Your task to perform on an android device: install app "Expedia: Hotels, Flights & Car" Image 0: 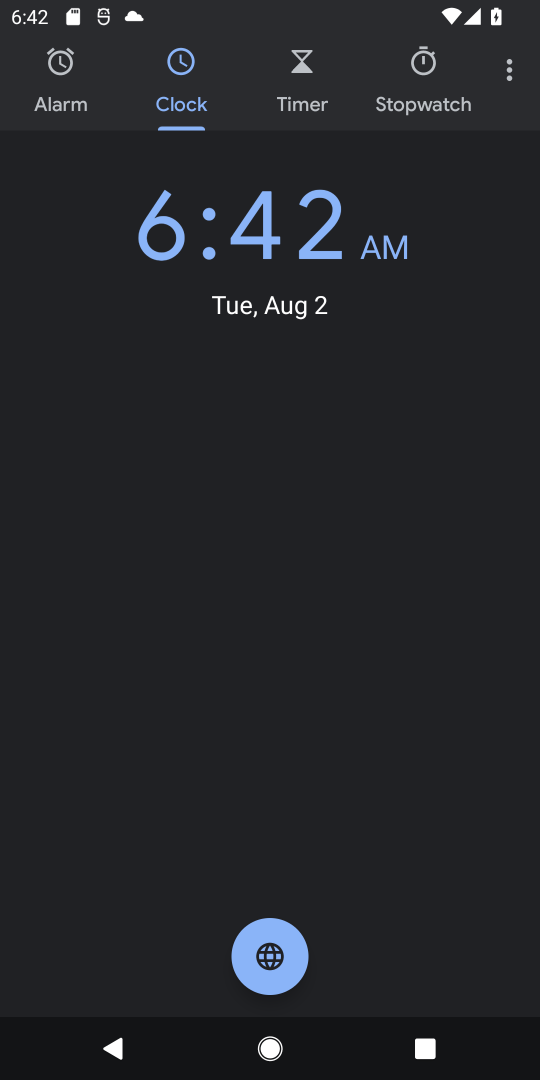
Step 0: press home button
Your task to perform on an android device: install app "Expedia: Hotels, Flights & Car" Image 1: 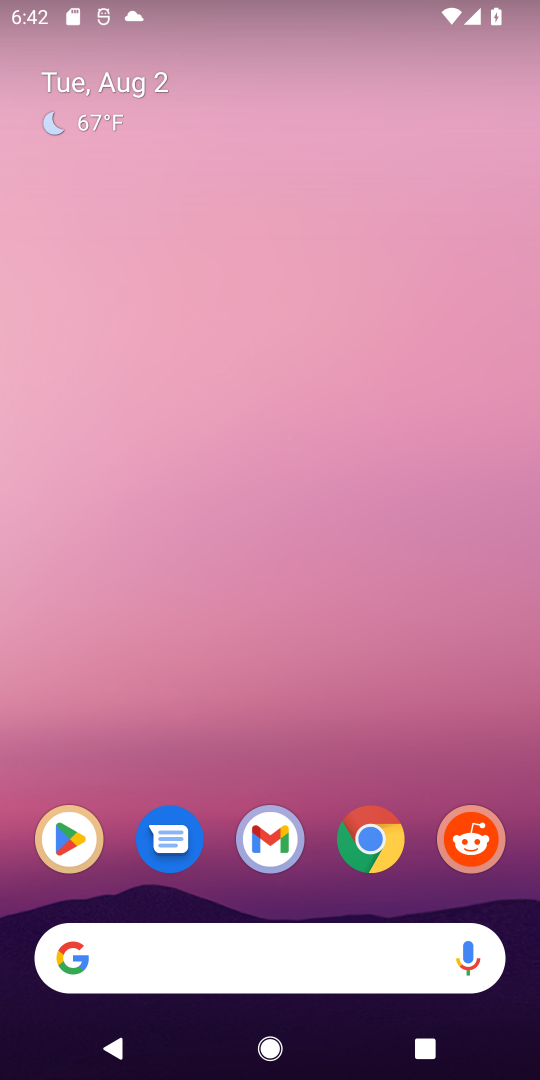
Step 1: click (70, 847)
Your task to perform on an android device: install app "Expedia: Hotels, Flights & Car" Image 2: 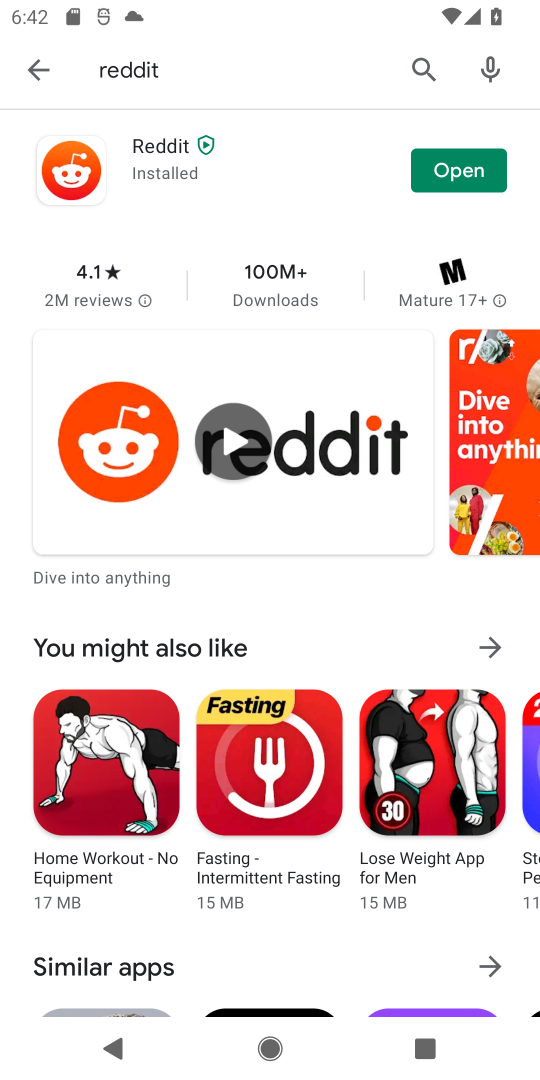
Step 2: click (144, 65)
Your task to perform on an android device: install app "Expedia: Hotels, Flights & Car" Image 3: 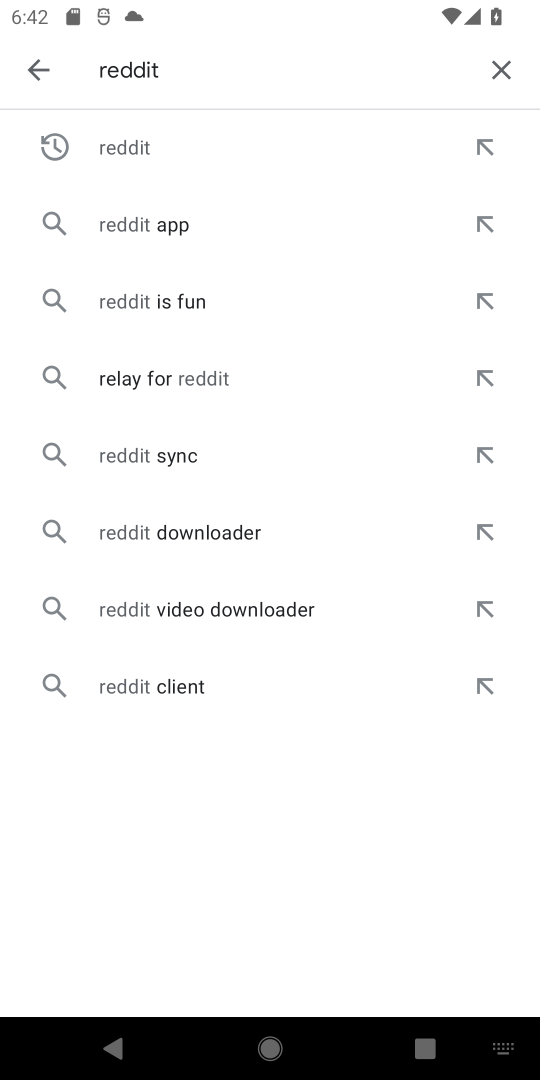
Step 3: click (495, 61)
Your task to perform on an android device: install app "Expedia: Hotels, Flights & Car" Image 4: 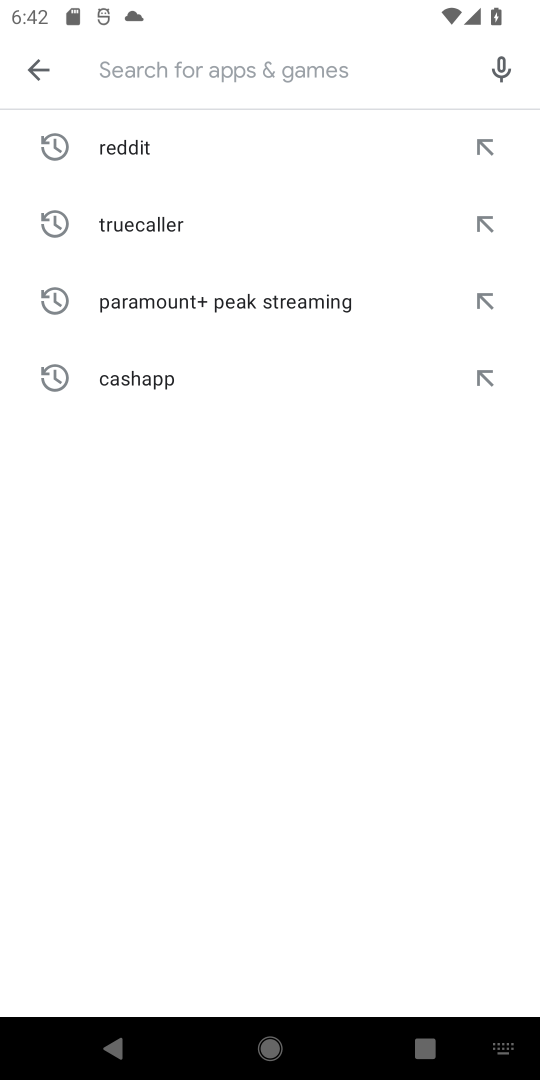
Step 4: type "expedia"
Your task to perform on an android device: install app "Expedia: Hotels, Flights & Car" Image 5: 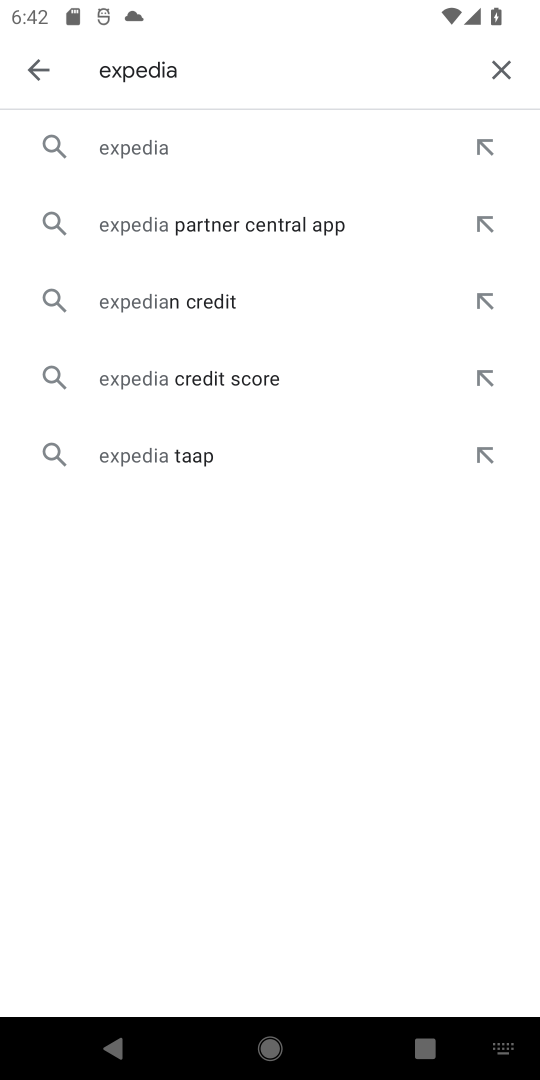
Step 5: click (165, 136)
Your task to perform on an android device: install app "Expedia: Hotels, Flights & Car" Image 6: 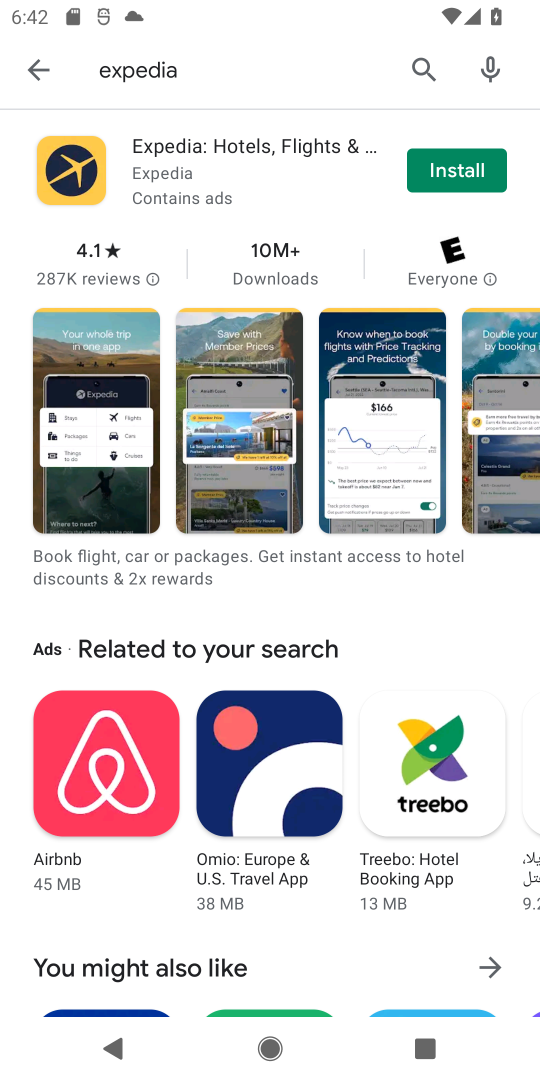
Step 6: click (445, 169)
Your task to perform on an android device: install app "Expedia: Hotels, Flights & Car" Image 7: 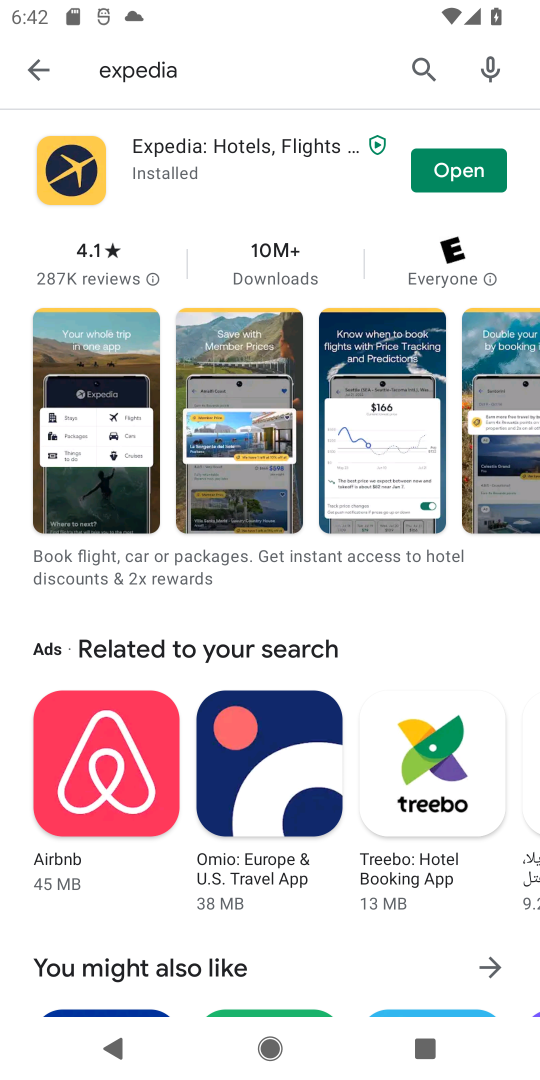
Step 7: task complete